Your task to perform on an android device: turn off improve location accuracy Image 0: 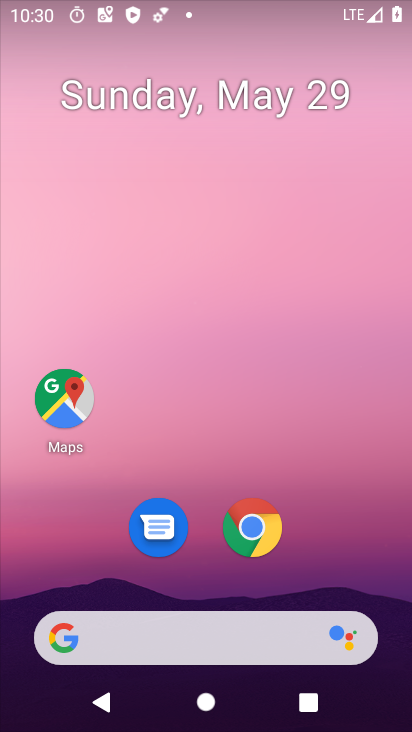
Step 0: drag from (348, 539) to (285, 151)
Your task to perform on an android device: turn off improve location accuracy Image 1: 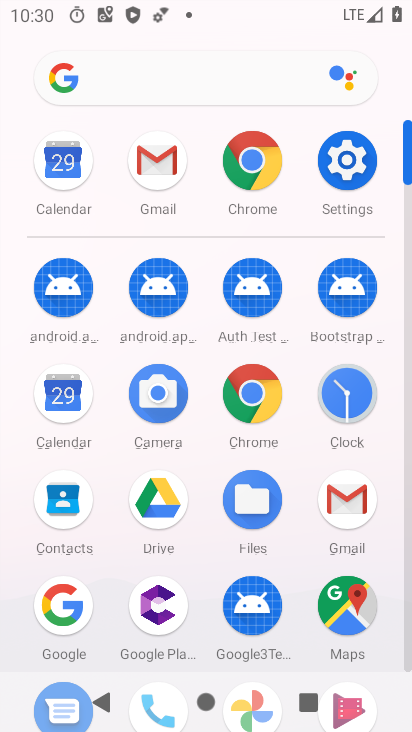
Step 1: click (342, 164)
Your task to perform on an android device: turn off improve location accuracy Image 2: 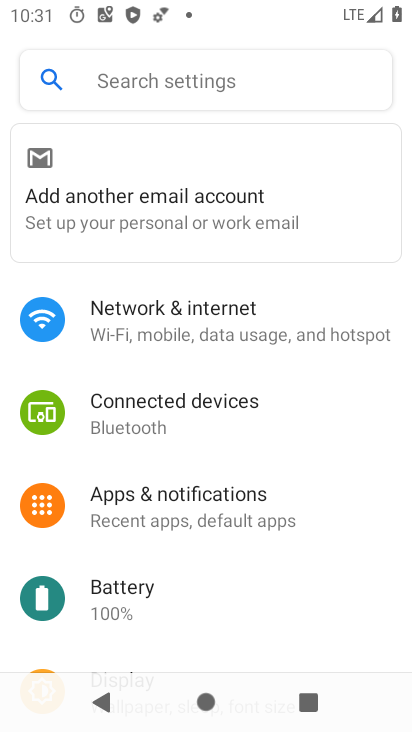
Step 2: drag from (250, 496) to (293, 155)
Your task to perform on an android device: turn off improve location accuracy Image 3: 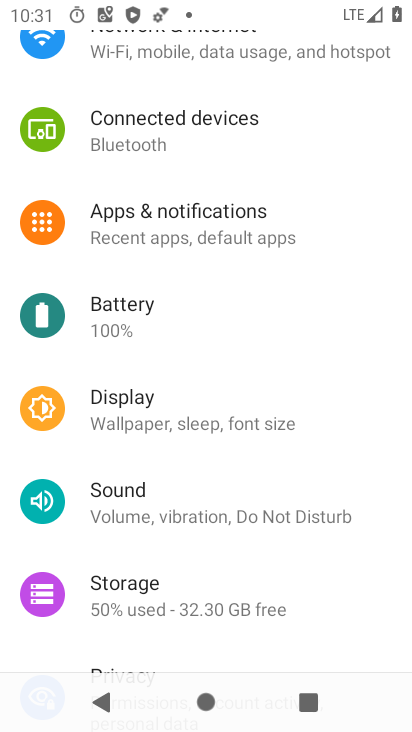
Step 3: click (294, 146)
Your task to perform on an android device: turn off improve location accuracy Image 4: 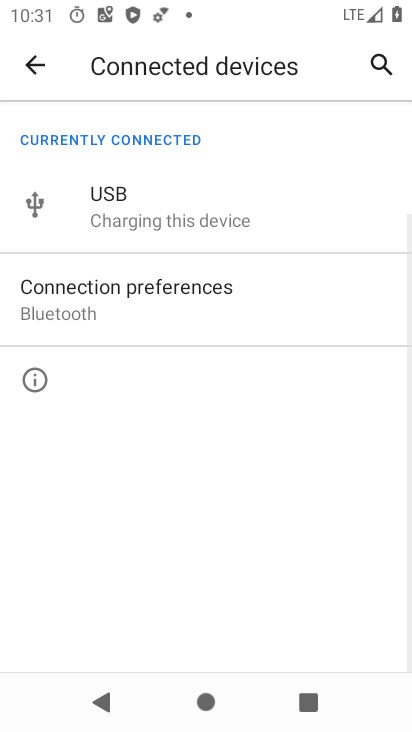
Step 4: click (45, 66)
Your task to perform on an android device: turn off improve location accuracy Image 5: 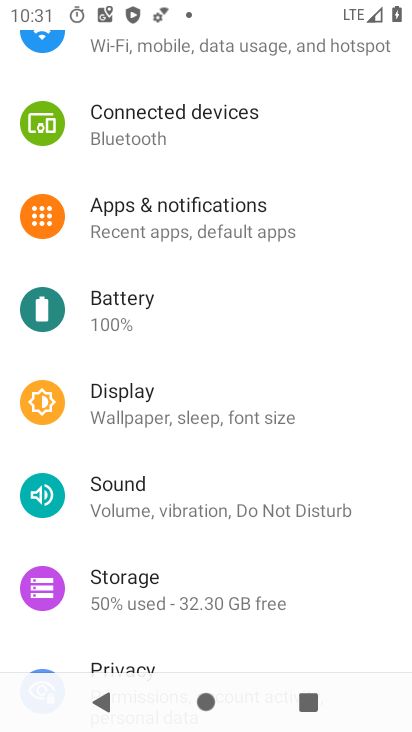
Step 5: drag from (265, 524) to (281, 119)
Your task to perform on an android device: turn off improve location accuracy Image 6: 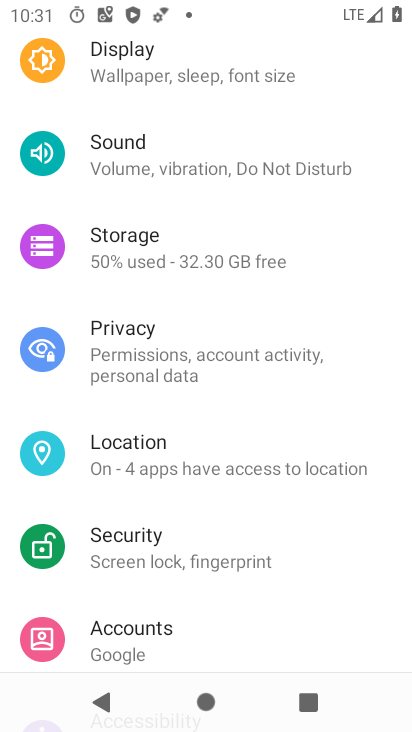
Step 6: click (153, 467)
Your task to perform on an android device: turn off improve location accuracy Image 7: 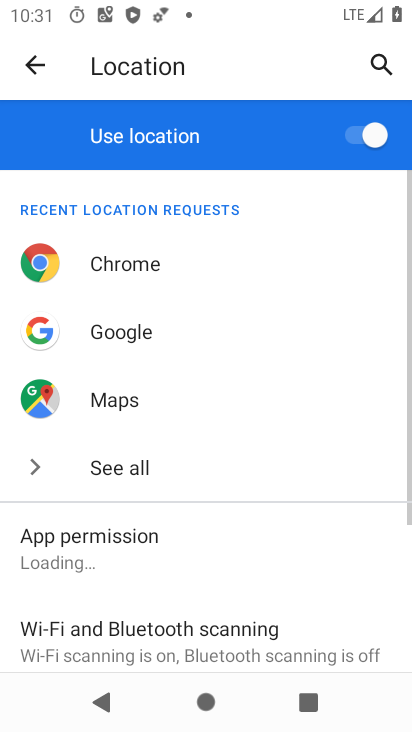
Step 7: drag from (228, 581) to (255, 156)
Your task to perform on an android device: turn off improve location accuracy Image 8: 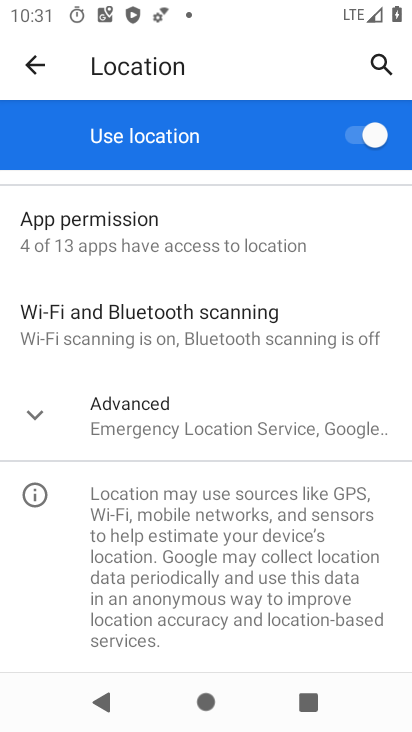
Step 8: click (148, 407)
Your task to perform on an android device: turn off improve location accuracy Image 9: 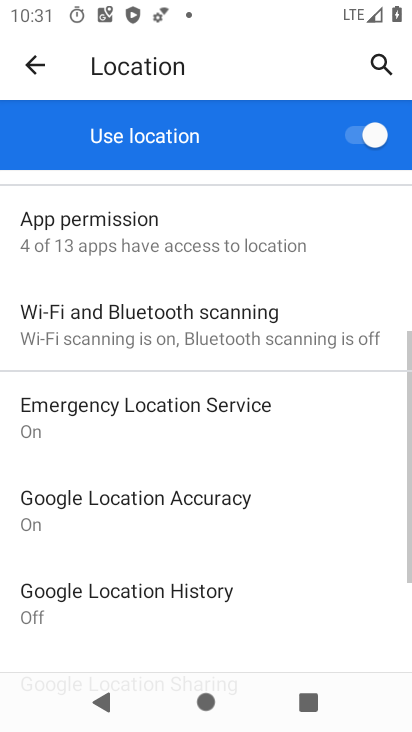
Step 9: drag from (284, 619) to (292, 334)
Your task to perform on an android device: turn off improve location accuracy Image 10: 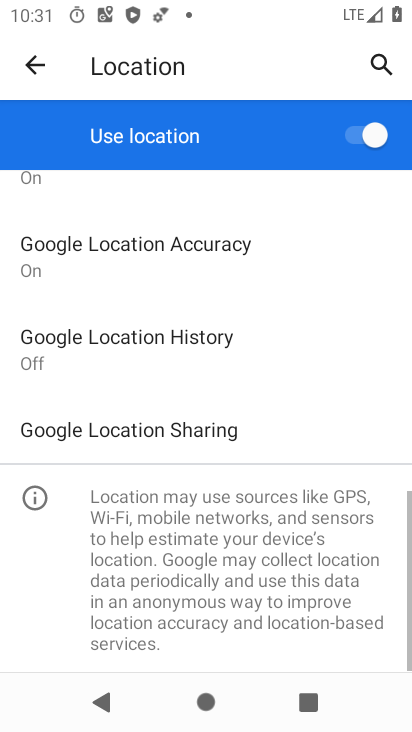
Step 10: click (292, 334)
Your task to perform on an android device: turn off improve location accuracy Image 11: 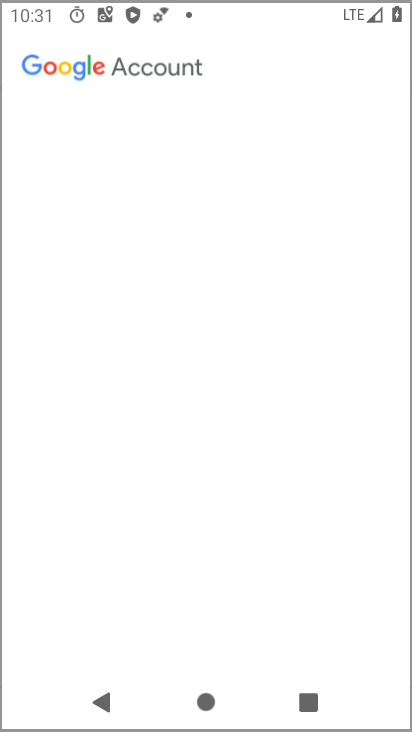
Step 11: click (42, 61)
Your task to perform on an android device: turn off improve location accuracy Image 12: 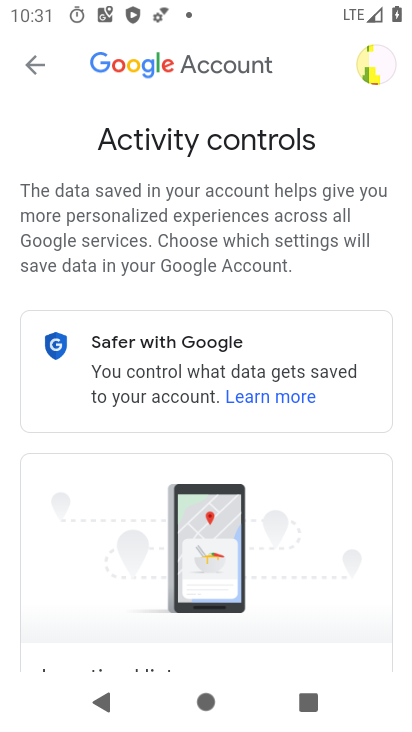
Step 12: click (45, 66)
Your task to perform on an android device: turn off improve location accuracy Image 13: 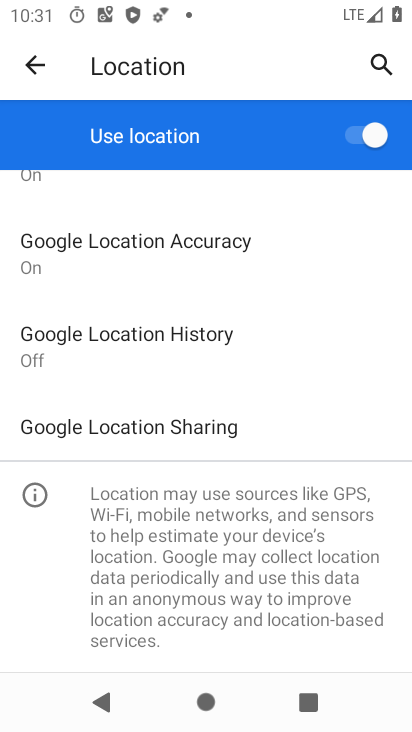
Step 13: click (193, 255)
Your task to perform on an android device: turn off improve location accuracy Image 14: 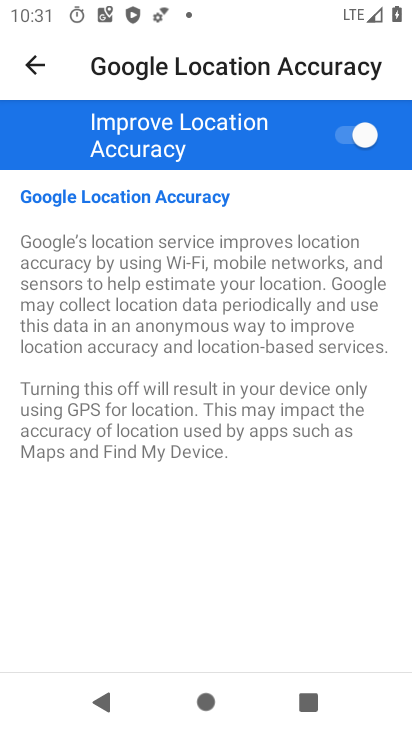
Step 14: click (371, 114)
Your task to perform on an android device: turn off improve location accuracy Image 15: 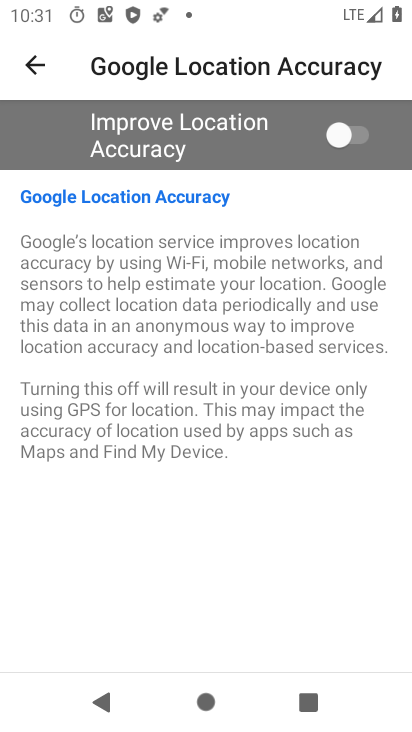
Step 15: task complete